Your task to perform on an android device: allow notifications from all sites in the chrome app Image 0: 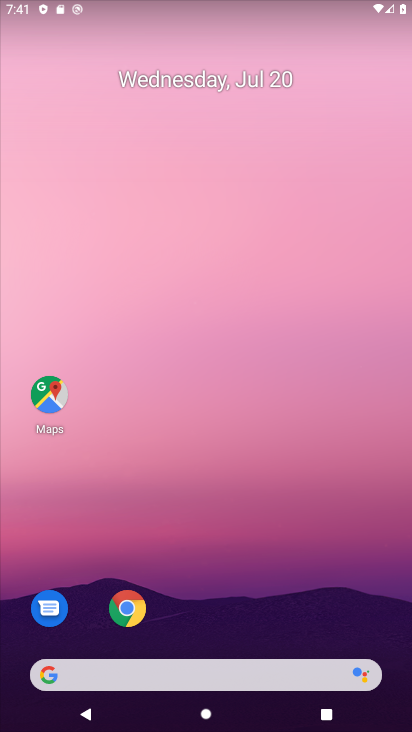
Step 0: drag from (202, 563) to (224, 63)
Your task to perform on an android device: allow notifications from all sites in the chrome app Image 1: 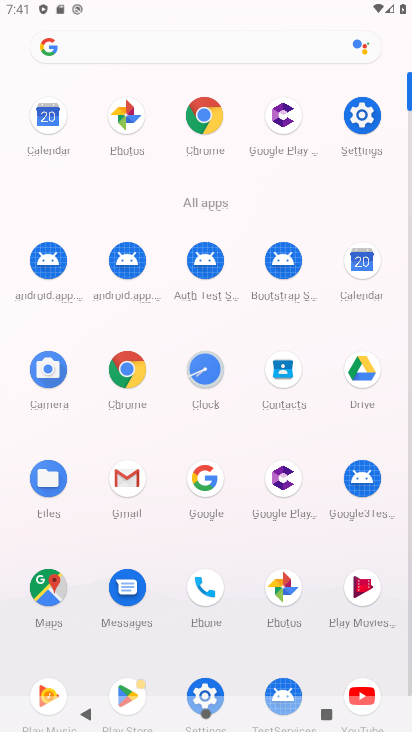
Step 1: click (134, 381)
Your task to perform on an android device: allow notifications from all sites in the chrome app Image 2: 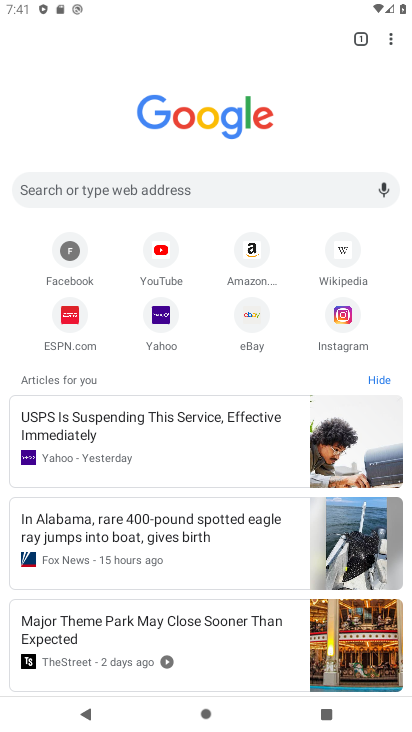
Step 2: click (393, 32)
Your task to perform on an android device: allow notifications from all sites in the chrome app Image 3: 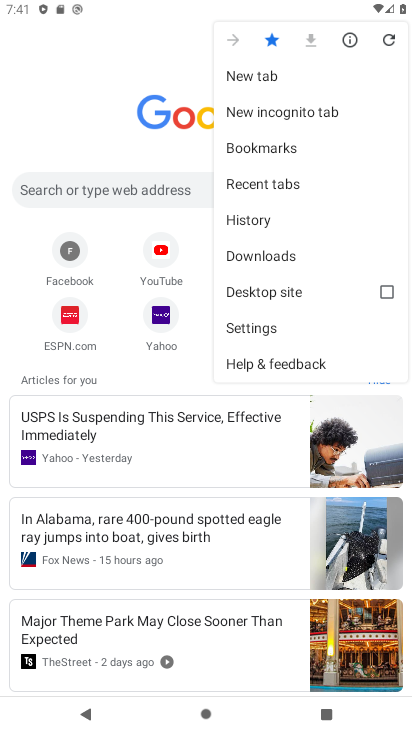
Step 3: click (260, 322)
Your task to perform on an android device: allow notifications from all sites in the chrome app Image 4: 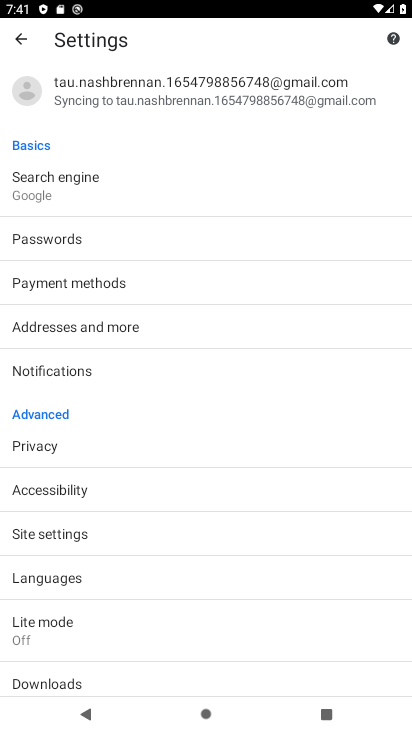
Step 4: click (72, 375)
Your task to perform on an android device: allow notifications from all sites in the chrome app Image 5: 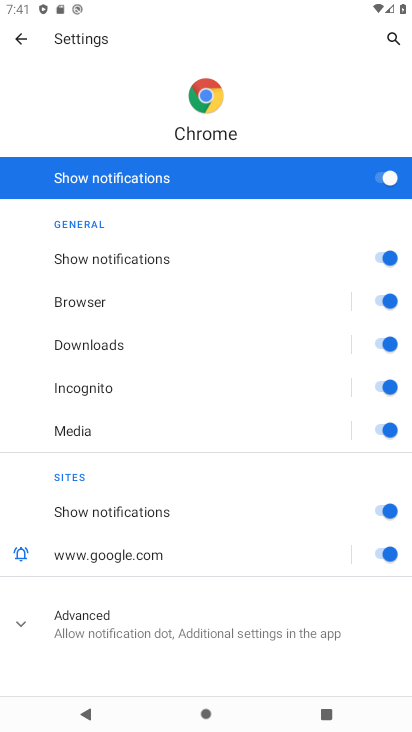
Step 5: task complete